Your task to perform on an android device: Search for seafood restaurants on Google Maps Image 0: 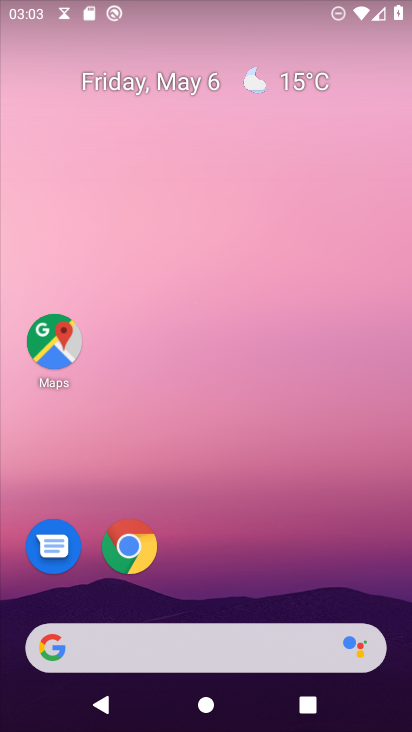
Step 0: click (52, 345)
Your task to perform on an android device: Search for seafood restaurants on Google Maps Image 1: 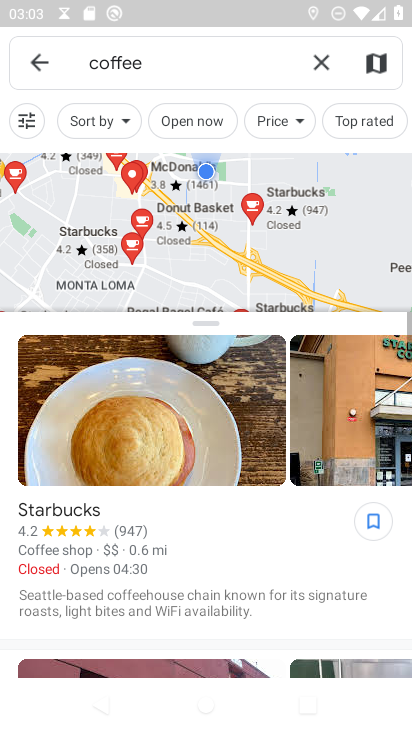
Step 1: click (319, 62)
Your task to perform on an android device: Search for seafood restaurants on Google Maps Image 2: 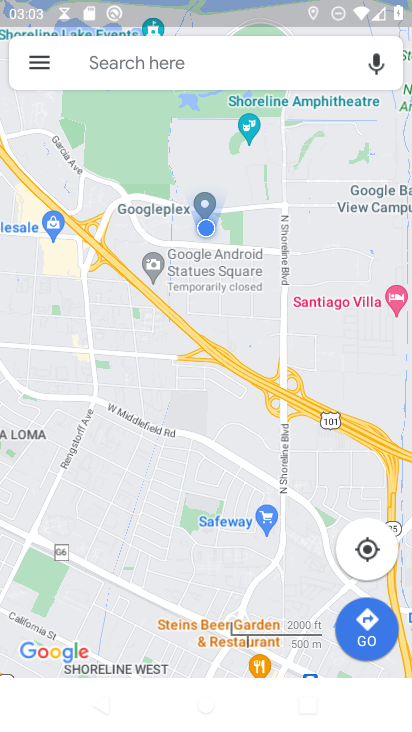
Step 2: click (194, 72)
Your task to perform on an android device: Search for seafood restaurants on Google Maps Image 3: 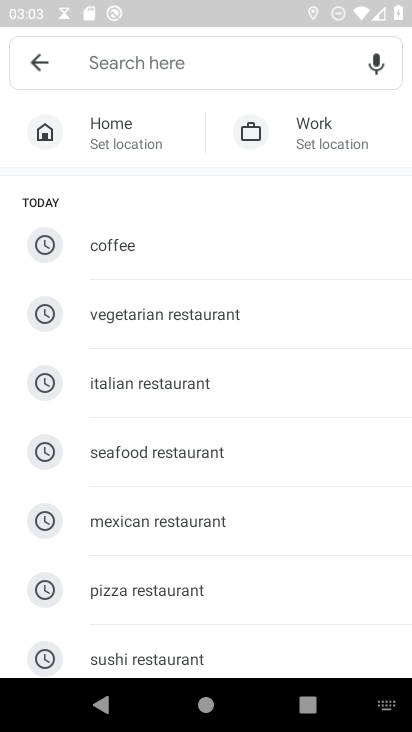
Step 3: click (159, 455)
Your task to perform on an android device: Search for seafood restaurants on Google Maps Image 4: 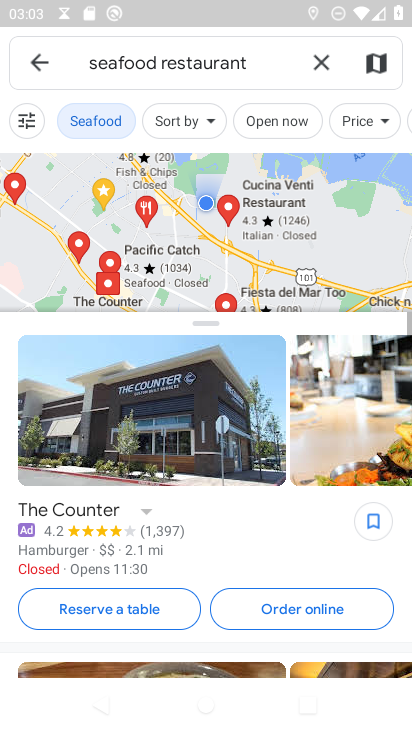
Step 4: task complete